Your task to perform on an android device: empty trash in the gmail app Image 0: 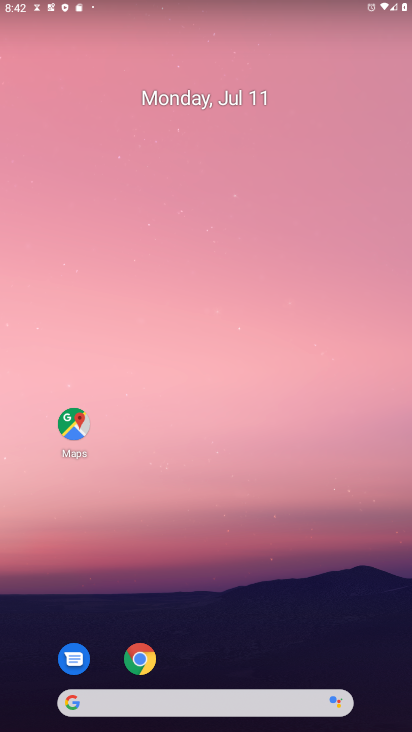
Step 0: drag from (179, 626) to (249, 171)
Your task to perform on an android device: empty trash in the gmail app Image 1: 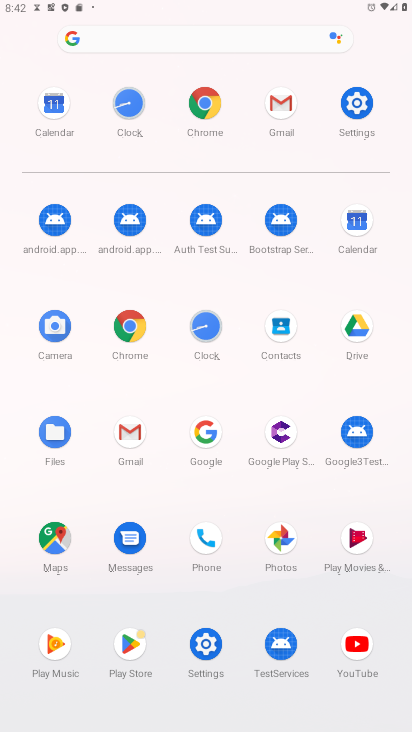
Step 1: click (129, 430)
Your task to perform on an android device: empty trash in the gmail app Image 2: 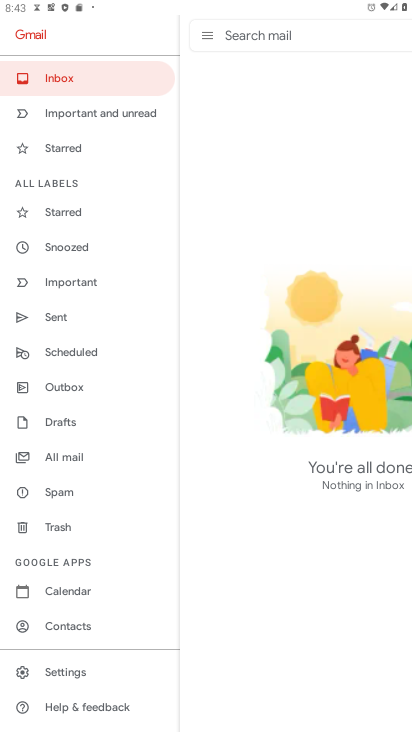
Step 2: drag from (52, 564) to (146, 285)
Your task to perform on an android device: empty trash in the gmail app Image 3: 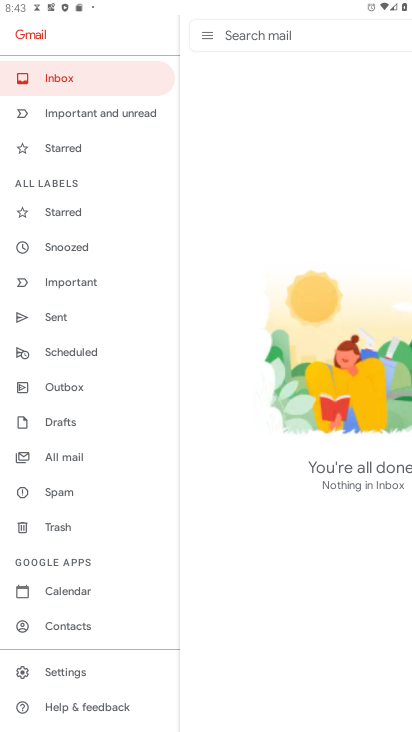
Step 3: click (74, 530)
Your task to perform on an android device: empty trash in the gmail app Image 4: 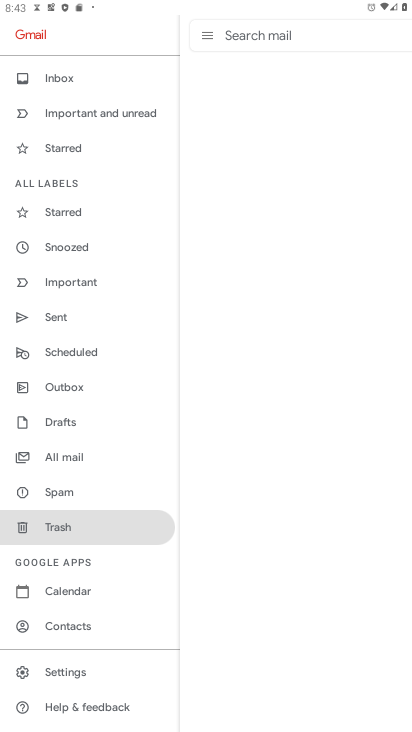
Step 4: task complete